Your task to perform on an android device: turn on translation in the chrome app Image 0: 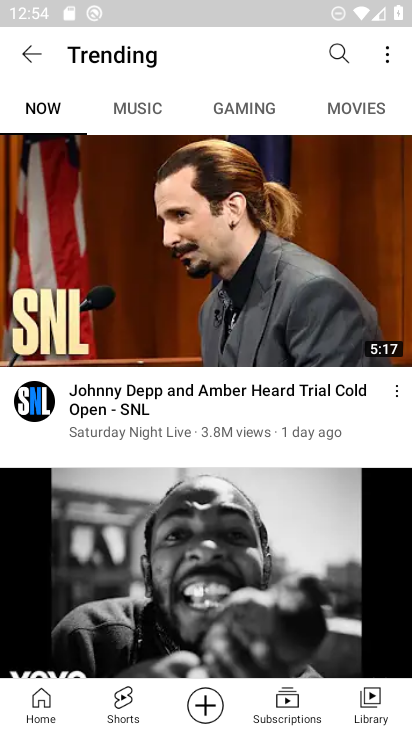
Step 0: drag from (225, 639) to (245, 576)
Your task to perform on an android device: turn on translation in the chrome app Image 1: 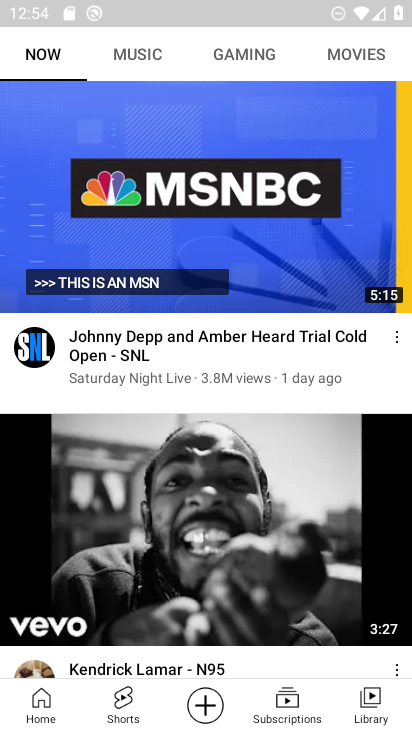
Step 1: press home button
Your task to perform on an android device: turn on translation in the chrome app Image 2: 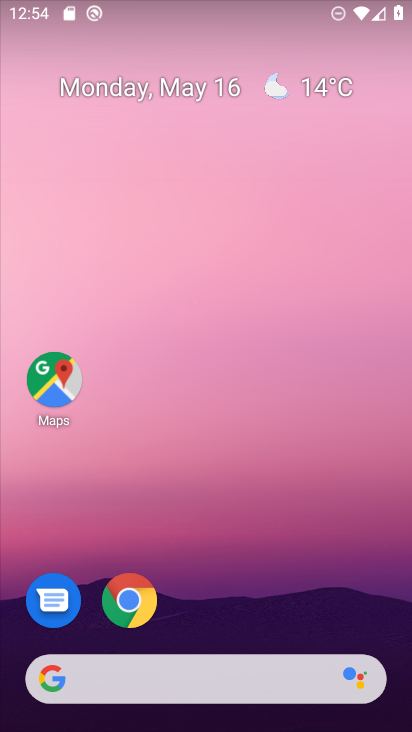
Step 2: click (127, 596)
Your task to perform on an android device: turn on translation in the chrome app Image 3: 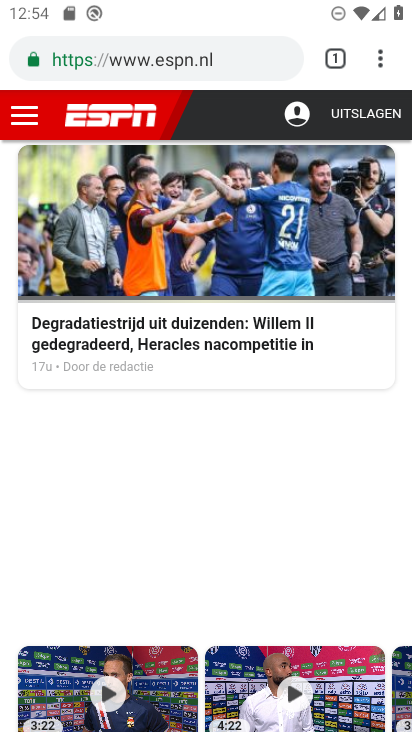
Step 3: click (377, 51)
Your task to perform on an android device: turn on translation in the chrome app Image 4: 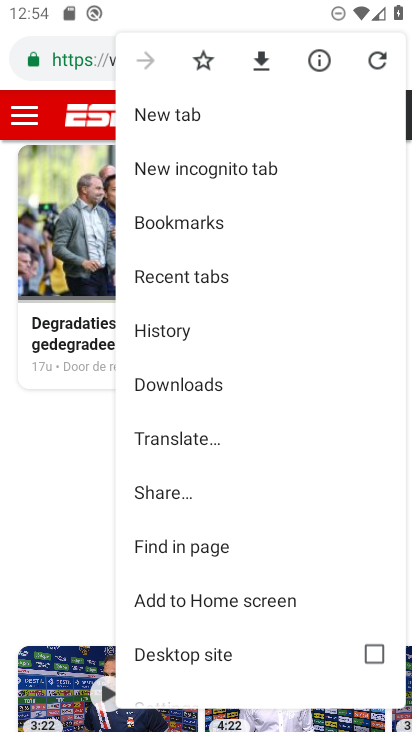
Step 4: drag from (261, 630) to (245, 171)
Your task to perform on an android device: turn on translation in the chrome app Image 5: 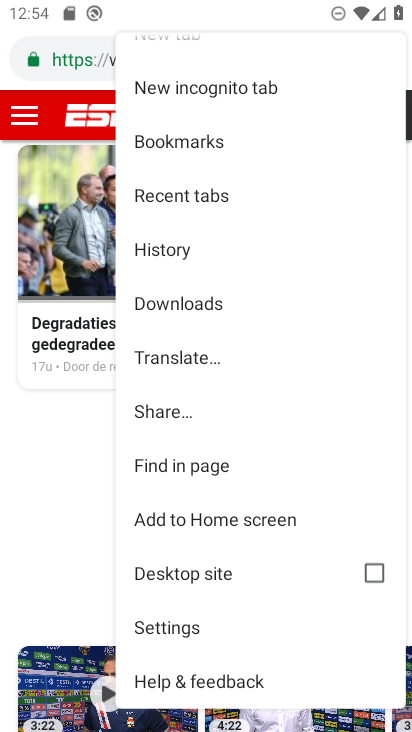
Step 5: click (205, 626)
Your task to perform on an android device: turn on translation in the chrome app Image 6: 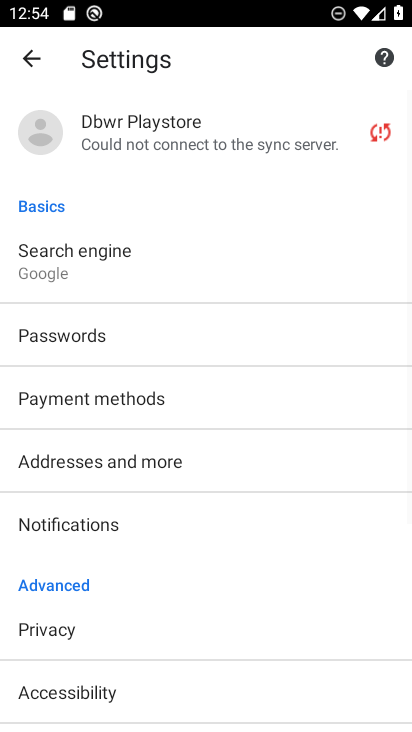
Step 6: drag from (186, 680) to (200, 166)
Your task to perform on an android device: turn on translation in the chrome app Image 7: 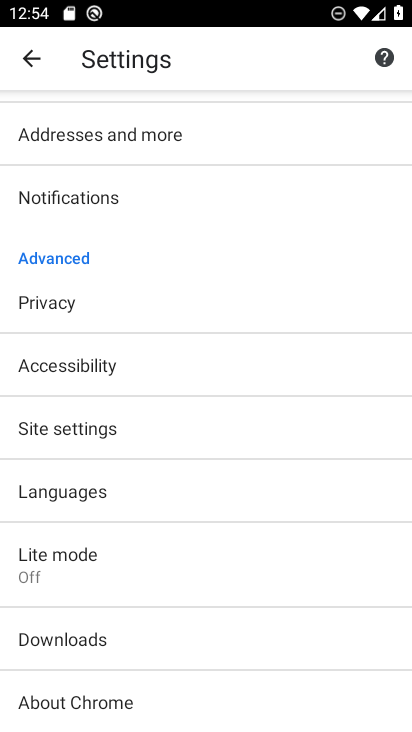
Step 7: click (120, 487)
Your task to perform on an android device: turn on translation in the chrome app Image 8: 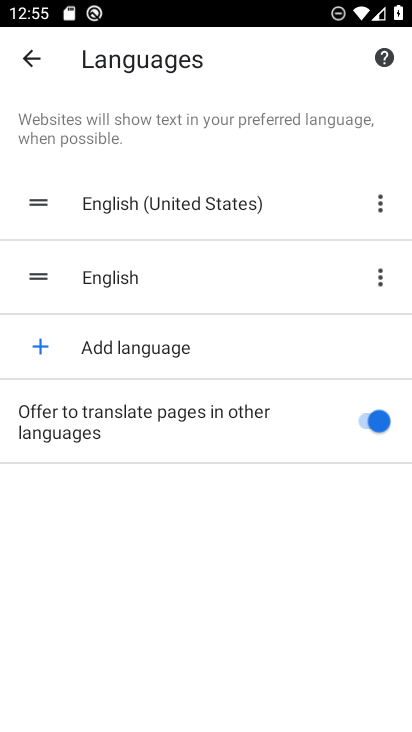
Step 8: task complete